Your task to perform on an android device: delete location history Image 0: 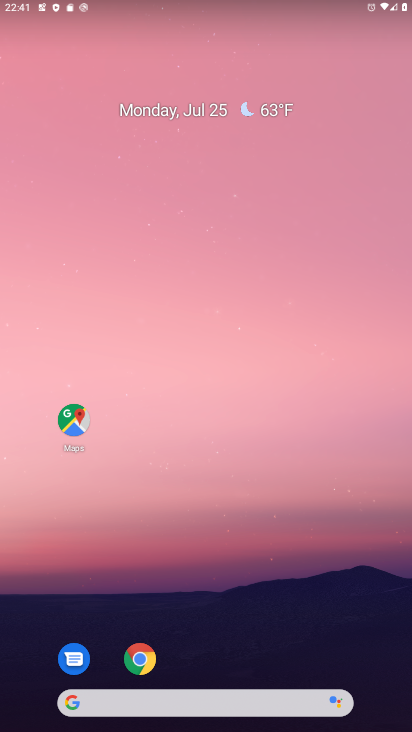
Step 0: drag from (191, 716) to (191, 309)
Your task to perform on an android device: delete location history Image 1: 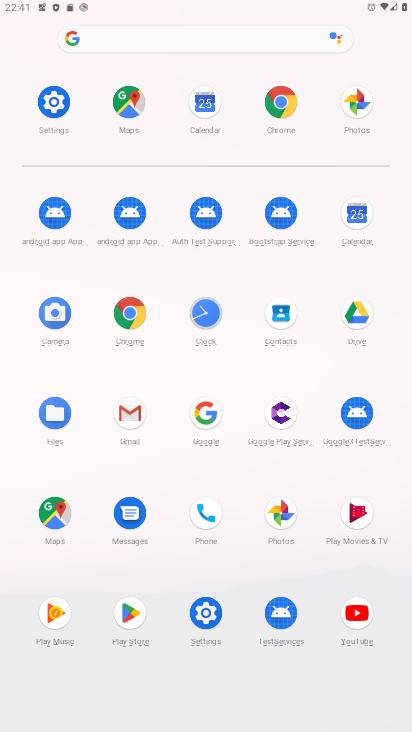
Step 1: click (47, 101)
Your task to perform on an android device: delete location history Image 2: 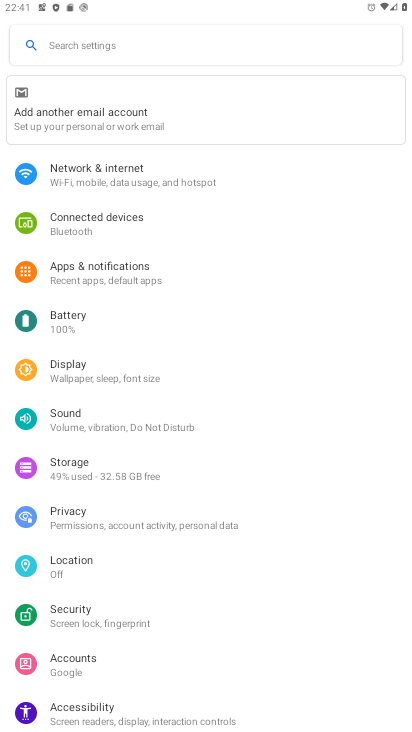
Step 2: press home button
Your task to perform on an android device: delete location history Image 3: 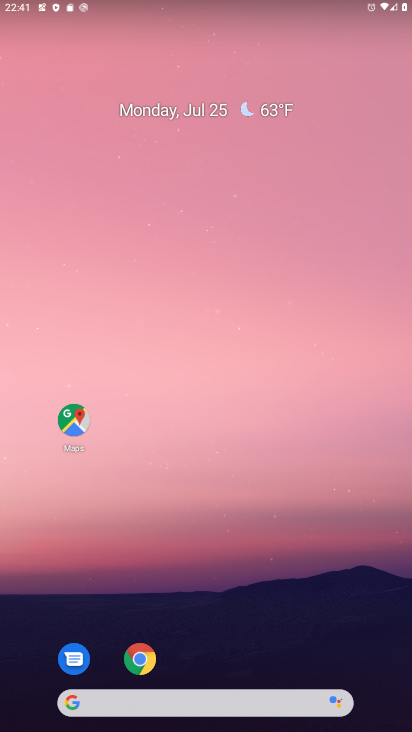
Step 3: drag from (220, 349) to (248, 161)
Your task to perform on an android device: delete location history Image 4: 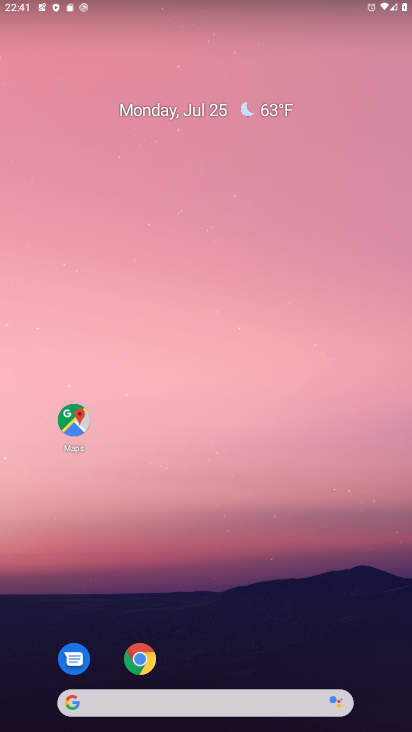
Step 4: drag from (188, 724) to (188, 101)
Your task to perform on an android device: delete location history Image 5: 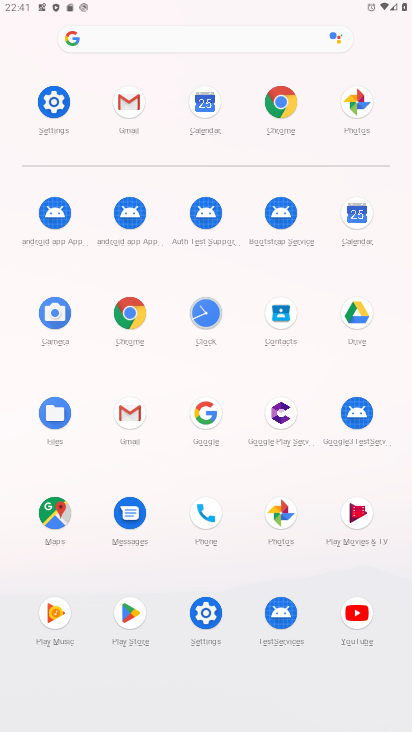
Step 5: click (57, 508)
Your task to perform on an android device: delete location history Image 6: 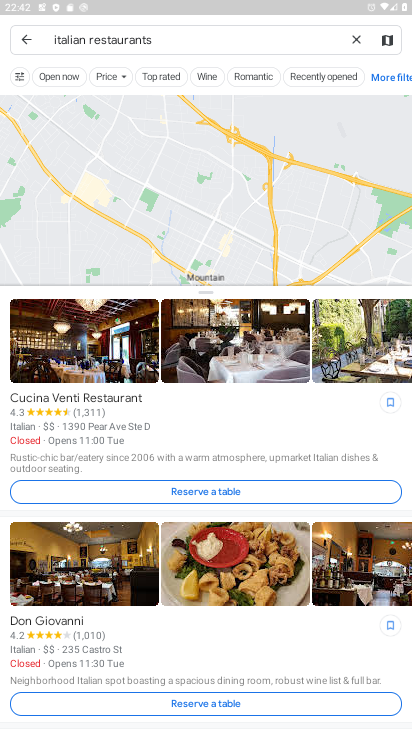
Step 6: click (30, 33)
Your task to perform on an android device: delete location history Image 7: 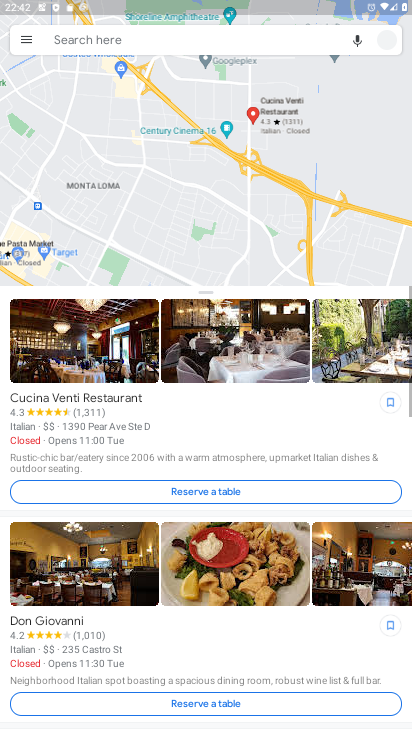
Step 7: click (24, 40)
Your task to perform on an android device: delete location history Image 8: 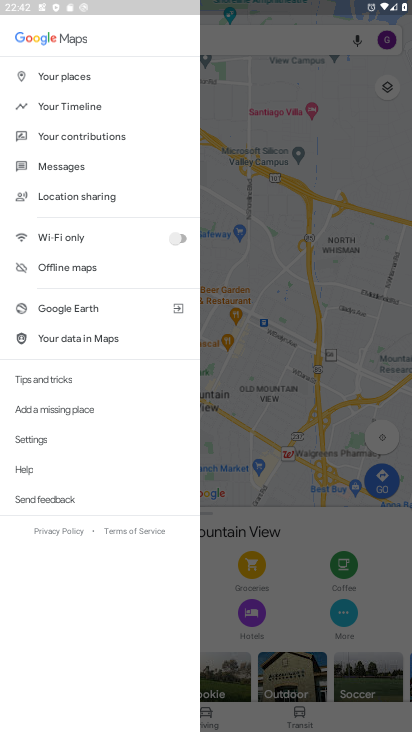
Step 8: click (63, 103)
Your task to perform on an android device: delete location history Image 9: 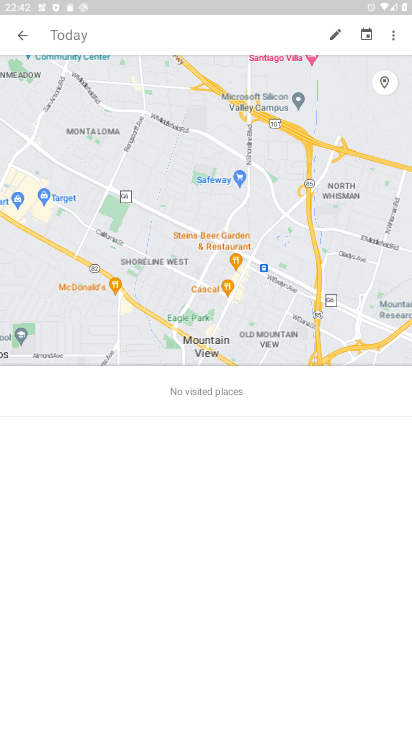
Step 9: click (392, 37)
Your task to perform on an android device: delete location history Image 10: 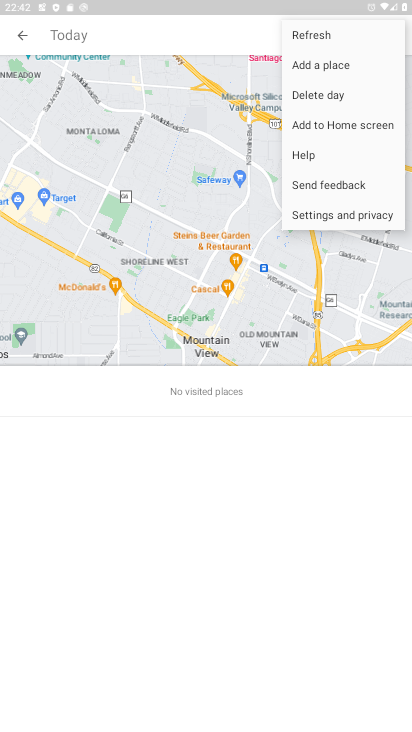
Step 10: click (329, 212)
Your task to perform on an android device: delete location history Image 11: 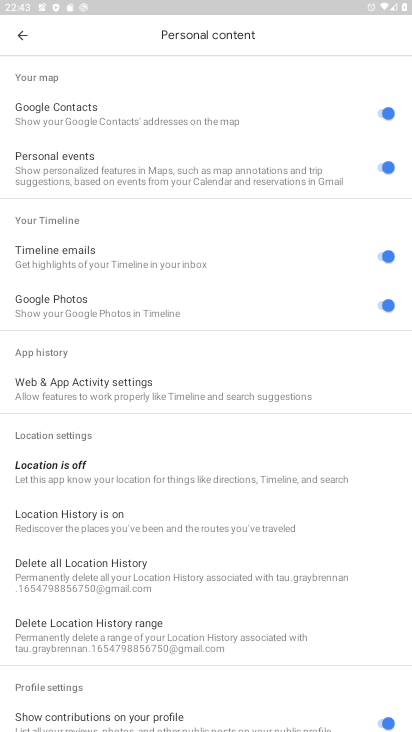
Step 11: click (87, 570)
Your task to perform on an android device: delete location history Image 12: 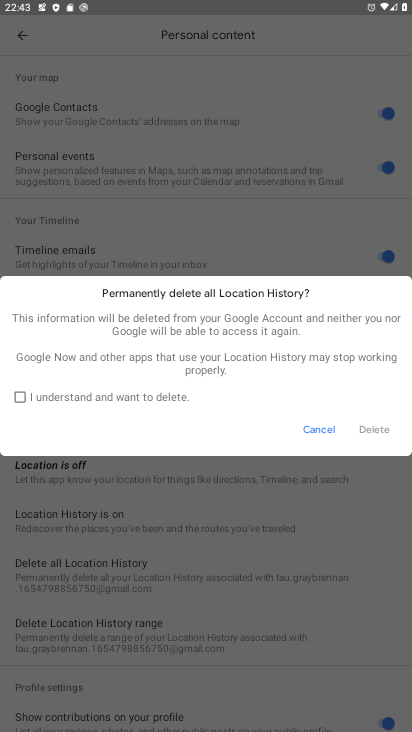
Step 12: click (20, 396)
Your task to perform on an android device: delete location history Image 13: 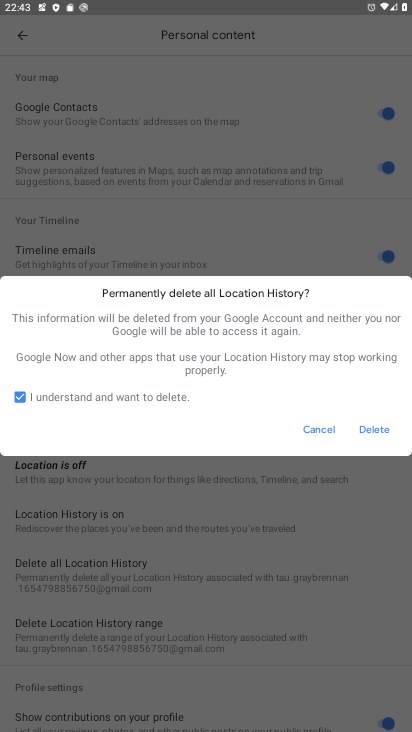
Step 13: click (374, 431)
Your task to perform on an android device: delete location history Image 14: 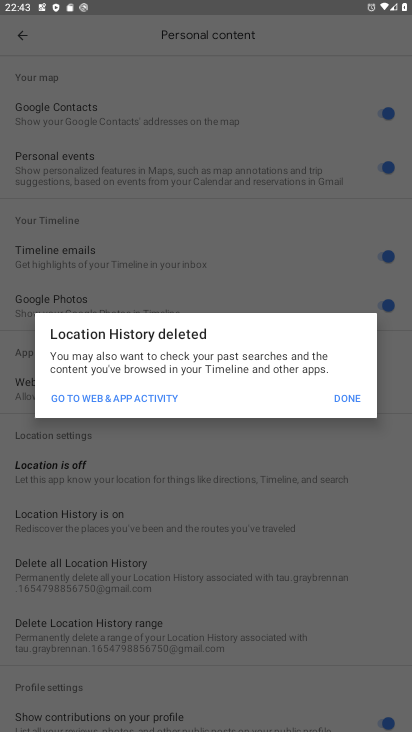
Step 14: click (345, 394)
Your task to perform on an android device: delete location history Image 15: 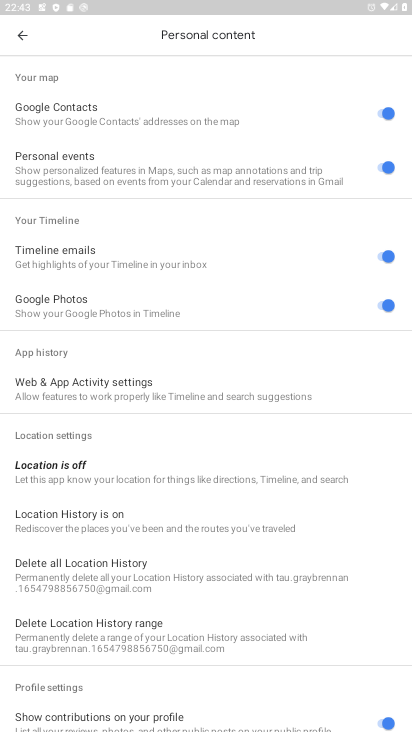
Step 15: task complete